Your task to perform on an android device: Open Google Image 0: 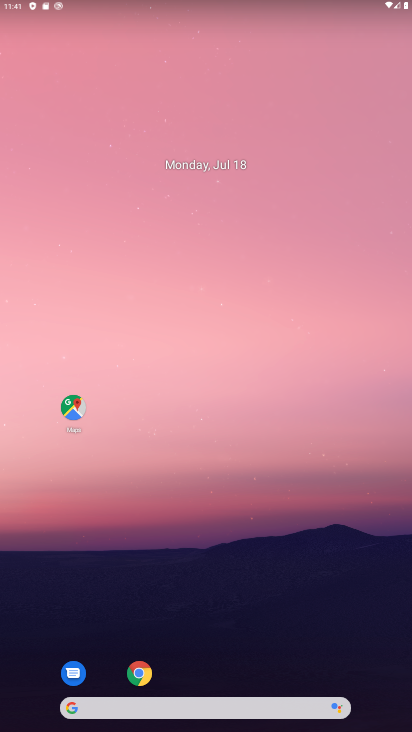
Step 0: press home button
Your task to perform on an android device: Open Google Image 1: 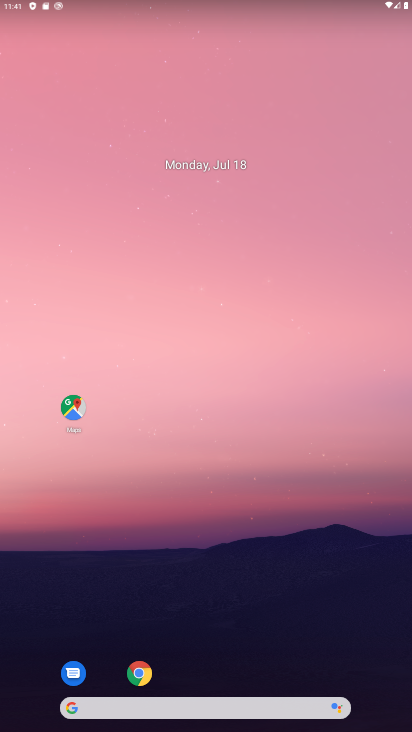
Step 1: drag from (252, 680) to (193, 25)
Your task to perform on an android device: Open Google Image 2: 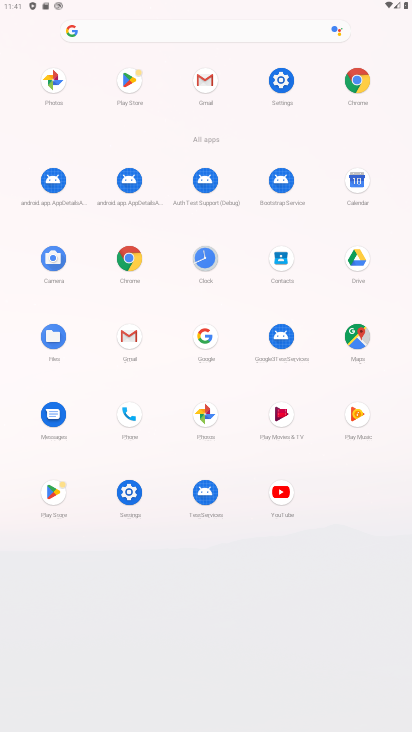
Step 2: click (201, 332)
Your task to perform on an android device: Open Google Image 3: 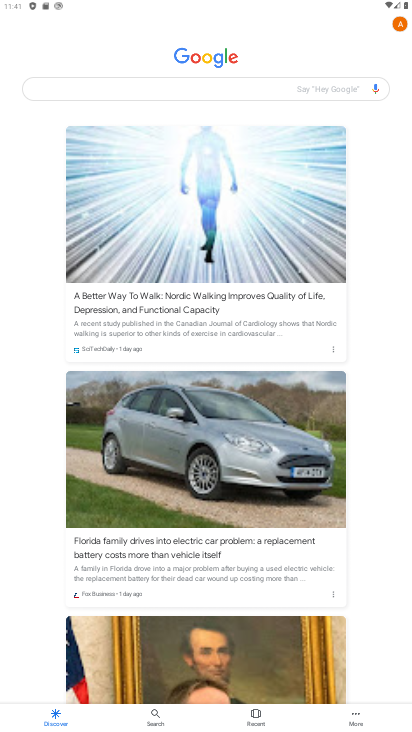
Step 3: click (161, 714)
Your task to perform on an android device: Open Google Image 4: 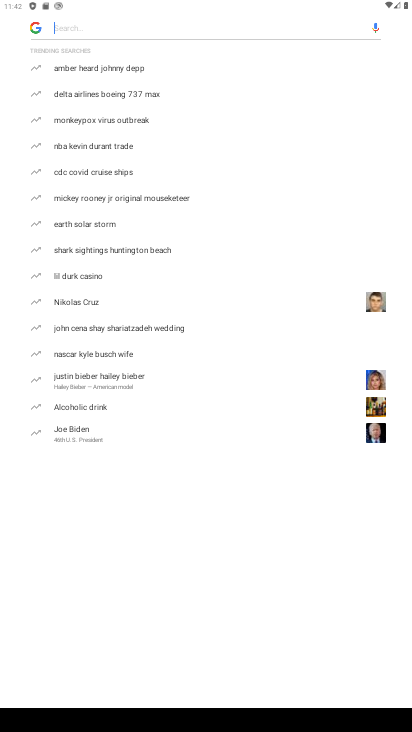
Step 4: task complete